Your task to perform on an android device: remove spam from my inbox in the gmail app Image 0: 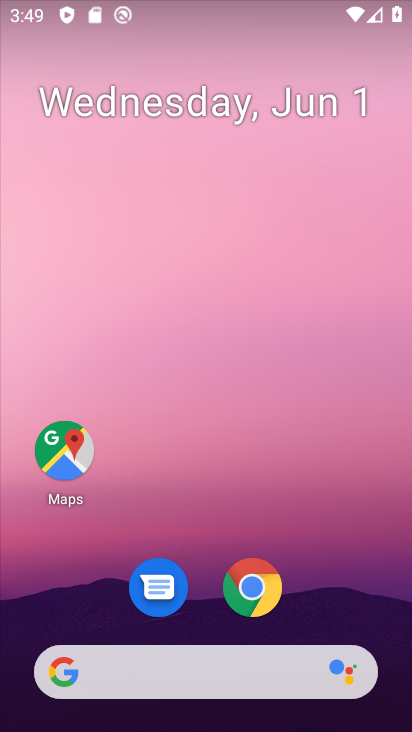
Step 0: drag from (311, 544) to (284, 171)
Your task to perform on an android device: remove spam from my inbox in the gmail app Image 1: 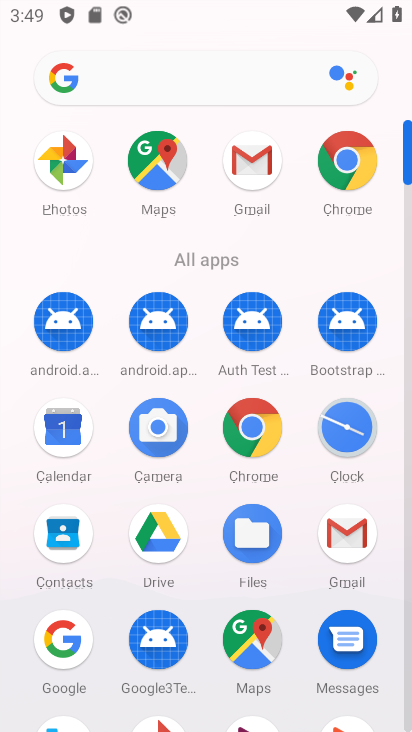
Step 1: click (251, 160)
Your task to perform on an android device: remove spam from my inbox in the gmail app Image 2: 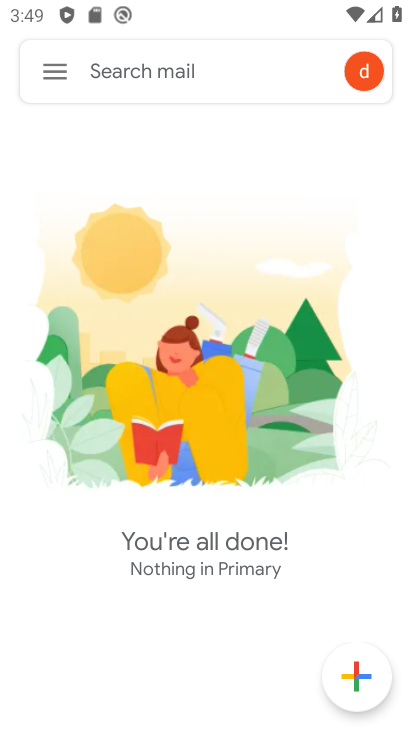
Step 2: click (53, 81)
Your task to perform on an android device: remove spam from my inbox in the gmail app Image 3: 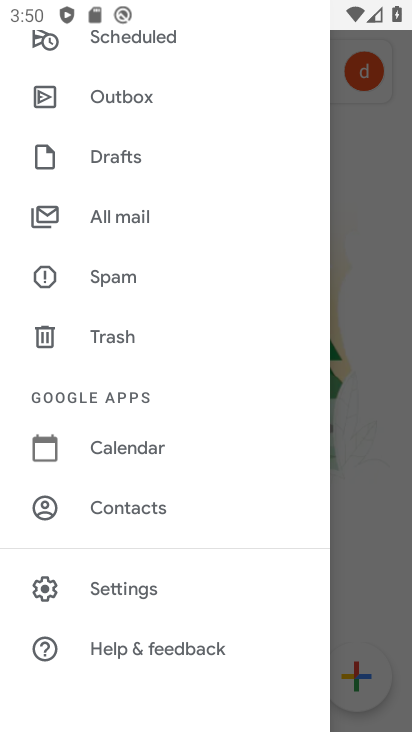
Step 3: click (129, 282)
Your task to perform on an android device: remove spam from my inbox in the gmail app Image 4: 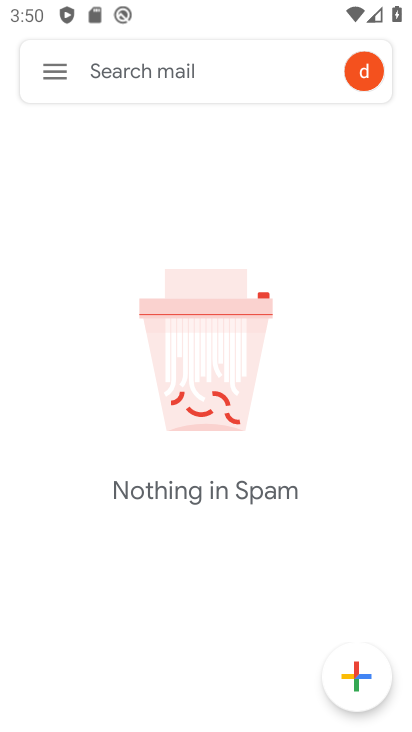
Step 4: task complete